Your task to perform on an android device: open a bookmark in the chrome app Image 0: 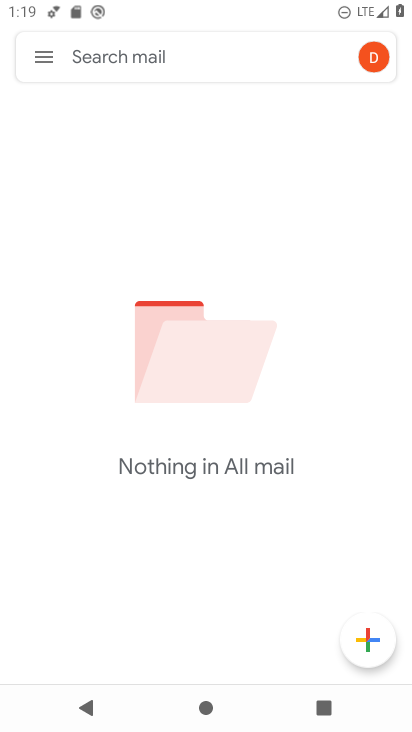
Step 0: press home button
Your task to perform on an android device: open a bookmark in the chrome app Image 1: 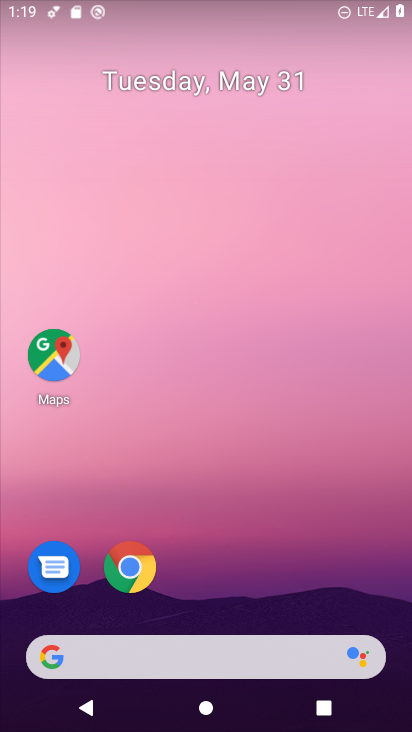
Step 1: click (118, 588)
Your task to perform on an android device: open a bookmark in the chrome app Image 2: 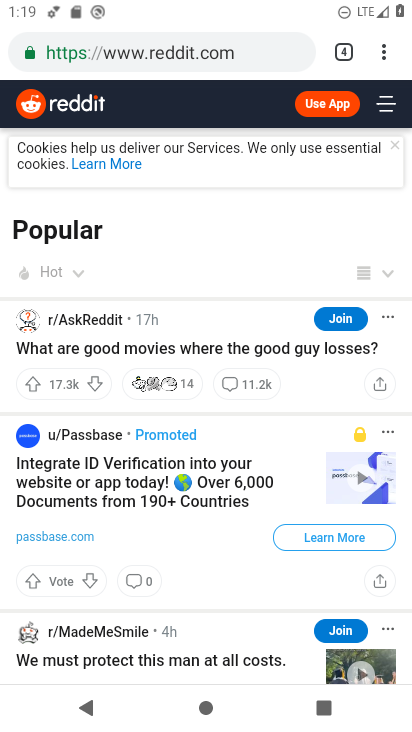
Step 2: click (375, 48)
Your task to perform on an android device: open a bookmark in the chrome app Image 3: 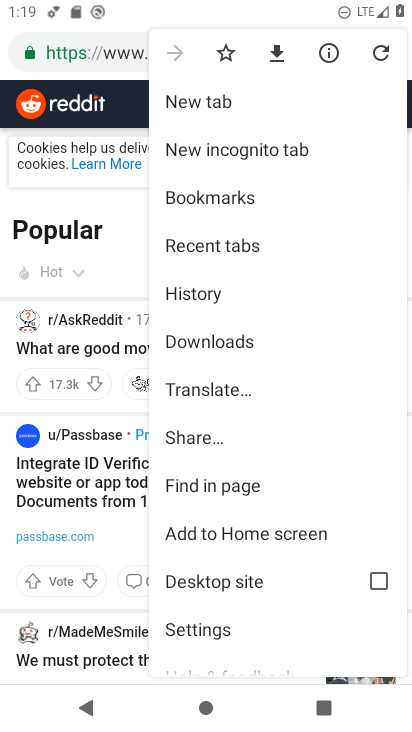
Step 3: click (236, 196)
Your task to perform on an android device: open a bookmark in the chrome app Image 4: 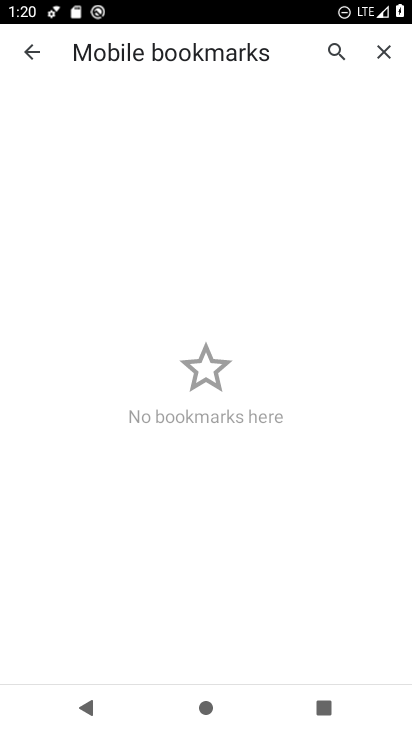
Step 4: task complete